Your task to perform on an android device: change timer sound Image 0: 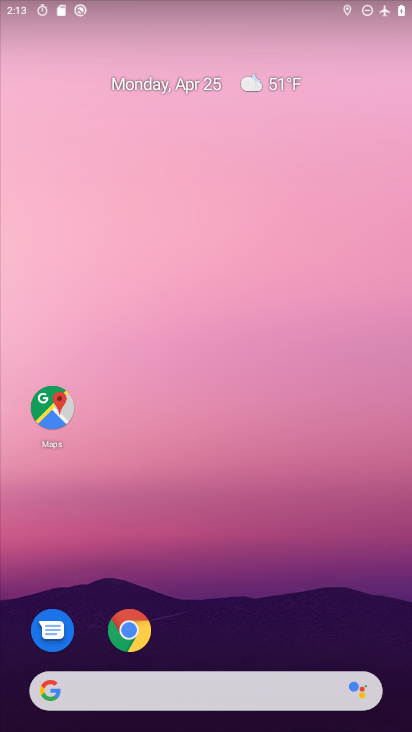
Step 0: drag from (263, 625) to (280, 89)
Your task to perform on an android device: change timer sound Image 1: 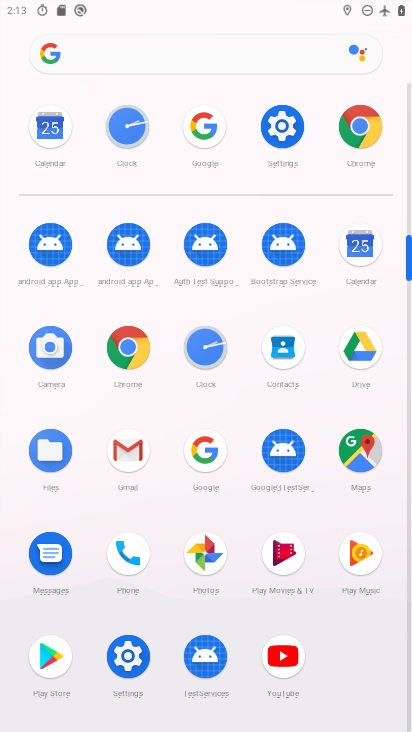
Step 1: click (275, 119)
Your task to perform on an android device: change timer sound Image 2: 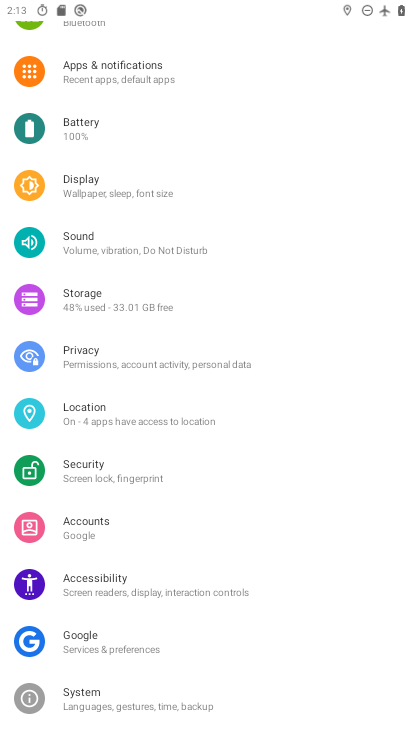
Step 2: press home button
Your task to perform on an android device: change timer sound Image 3: 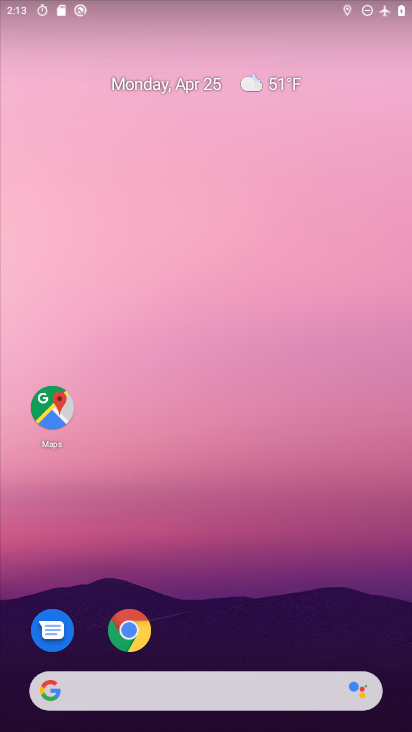
Step 3: drag from (267, 444) to (307, 17)
Your task to perform on an android device: change timer sound Image 4: 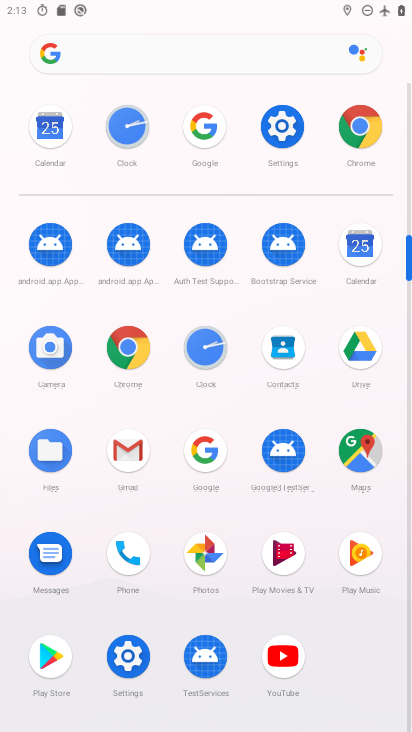
Step 4: click (201, 345)
Your task to perform on an android device: change timer sound Image 5: 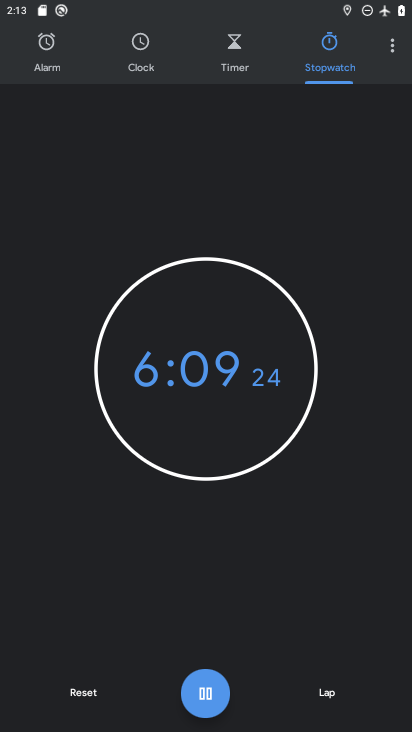
Step 5: click (387, 47)
Your task to perform on an android device: change timer sound Image 6: 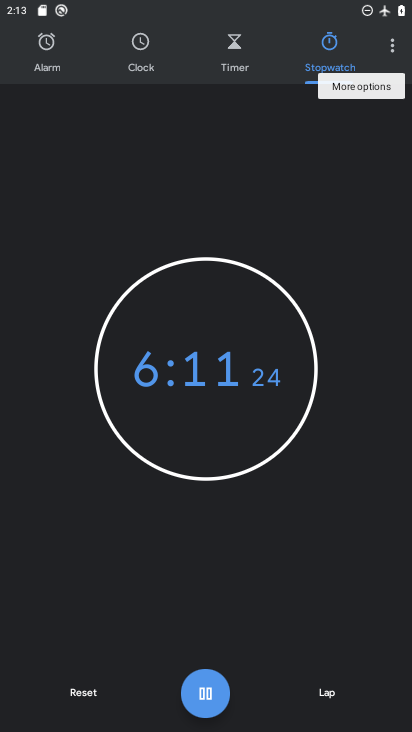
Step 6: click (399, 60)
Your task to perform on an android device: change timer sound Image 7: 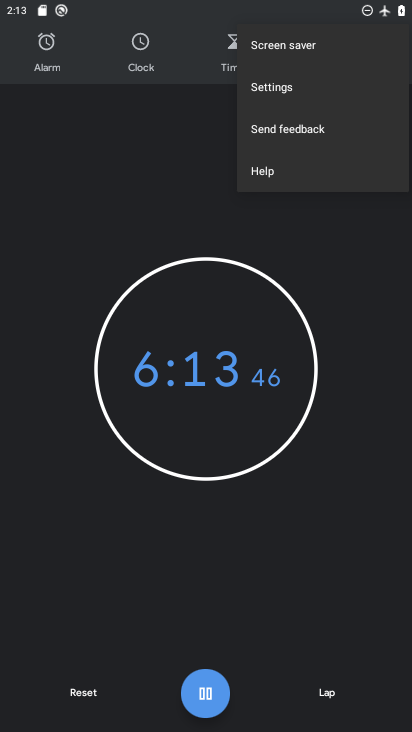
Step 7: click (285, 83)
Your task to perform on an android device: change timer sound Image 8: 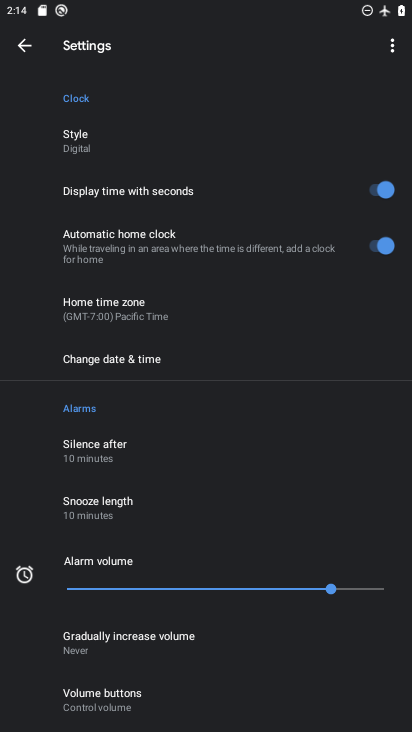
Step 8: drag from (165, 509) to (246, 176)
Your task to perform on an android device: change timer sound Image 9: 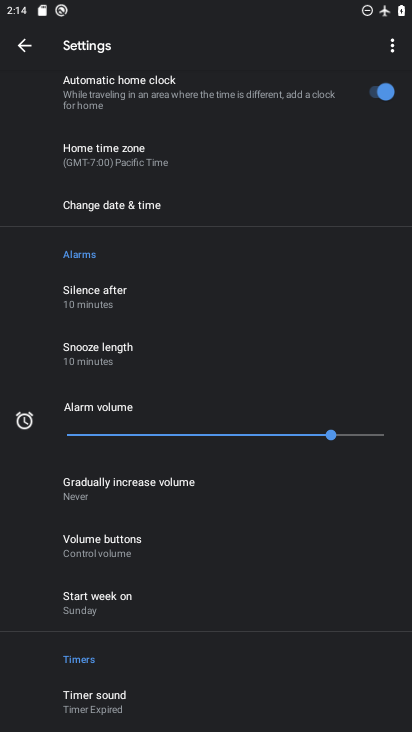
Step 9: drag from (195, 586) to (328, 160)
Your task to perform on an android device: change timer sound Image 10: 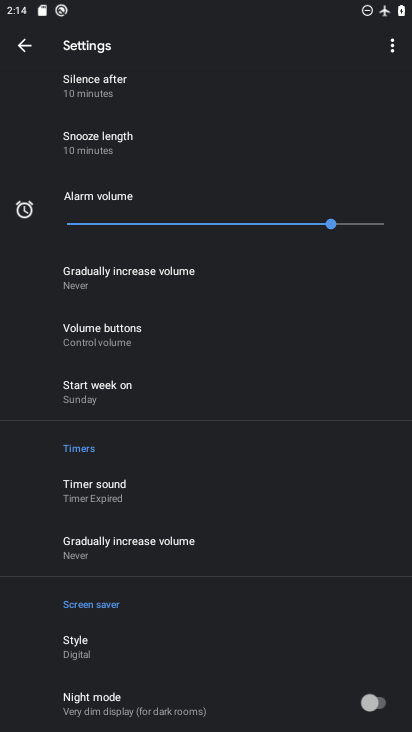
Step 10: click (112, 501)
Your task to perform on an android device: change timer sound Image 11: 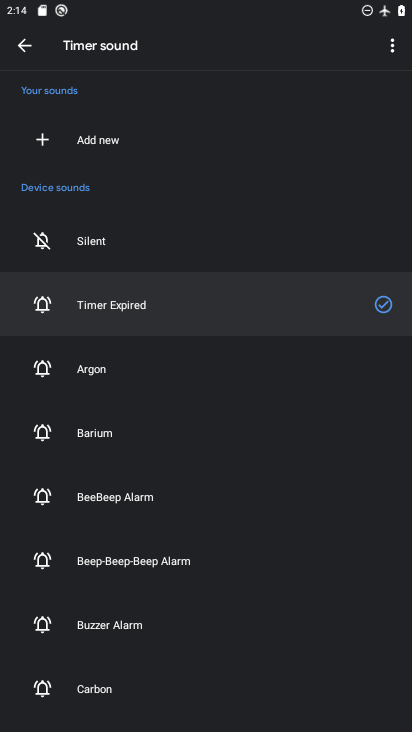
Step 11: click (84, 360)
Your task to perform on an android device: change timer sound Image 12: 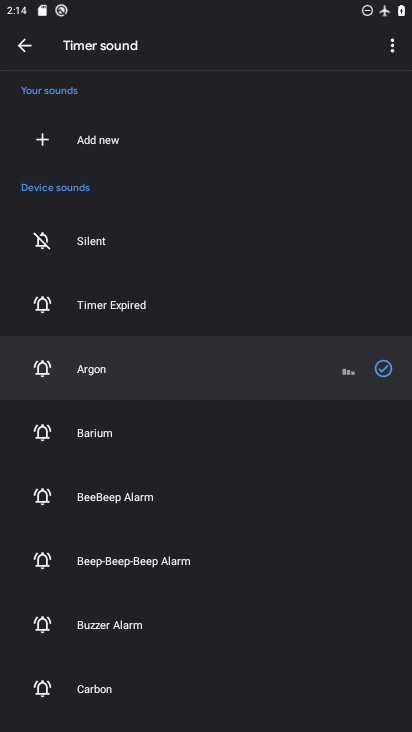
Step 12: task complete